Your task to perform on an android device: Open Google Chrome and click the shortcut for Amazon.com Image 0: 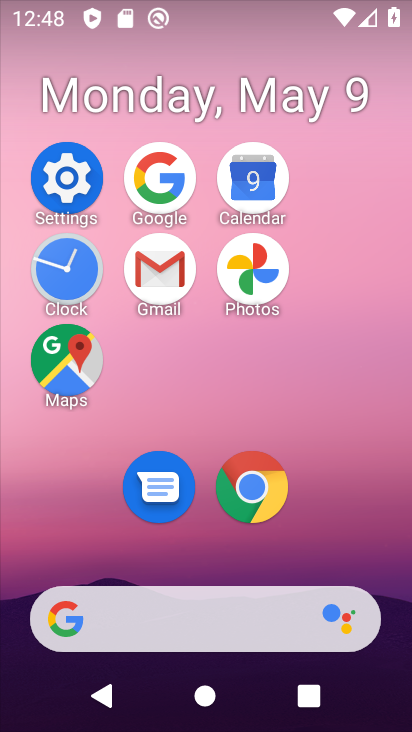
Step 0: click (274, 455)
Your task to perform on an android device: Open Google Chrome and click the shortcut for Amazon.com Image 1: 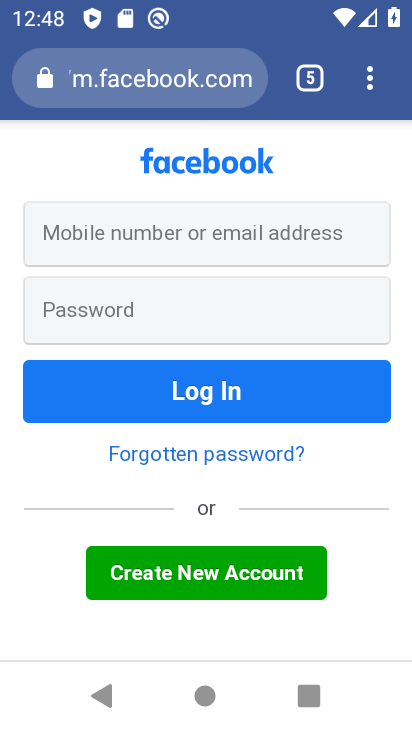
Step 1: click (325, 81)
Your task to perform on an android device: Open Google Chrome and click the shortcut for Amazon.com Image 2: 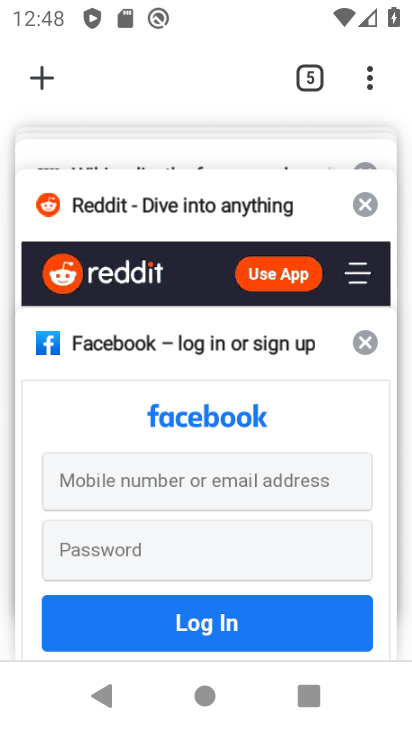
Step 2: drag from (202, 189) to (257, 468)
Your task to perform on an android device: Open Google Chrome and click the shortcut for Amazon.com Image 3: 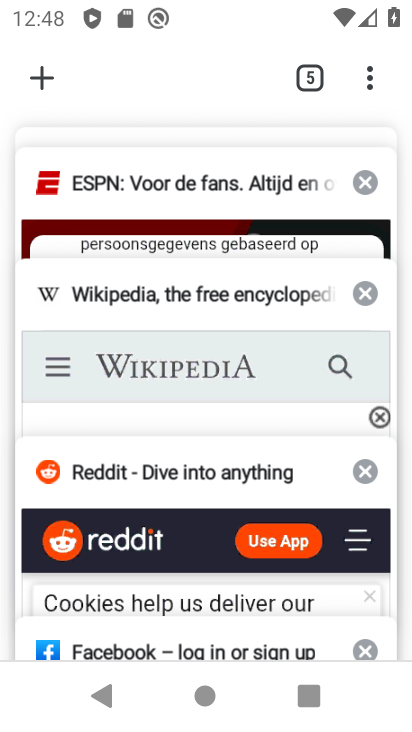
Step 3: drag from (214, 219) to (239, 478)
Your task to perform on an android device: Open Google Chrome and click the shortcut for Amazon.com Image 4: 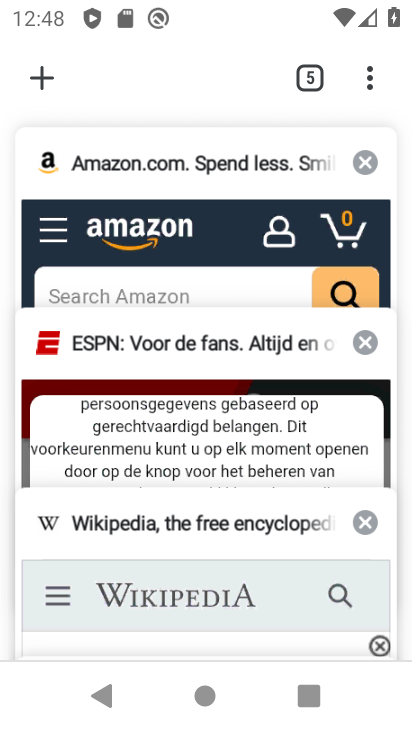
Step 4: click (200, 186)
Your task to perform on an android device: Open Google Chrome and click the shortcut for Amazon.com Image 5: 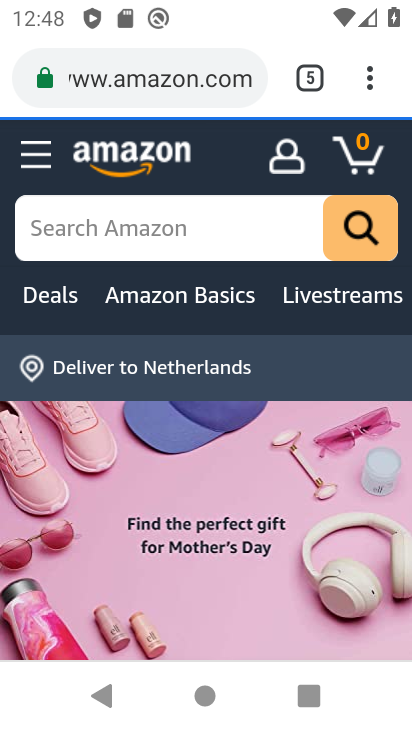
Step 5: click (372, 81)
Your task to perform on an android device: Open Google Chrome and click the shortcut for Amazon.com Image 6: 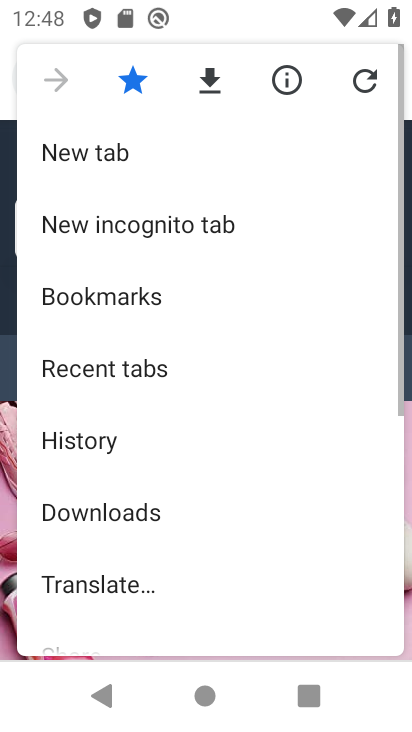
Step 6: drag from (246, 473) to (241, 155)
Your task to perform on an android device: Open Google Chrome and click the shortcut for Amazon.com Image 7: 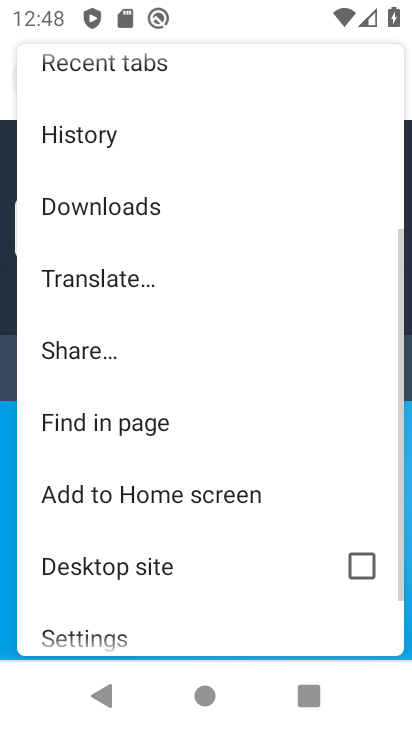
Step 7: click (232, 477)
Your task to perform on an android device: Open Google Chrome and click the shortcut for Amazon.com Image 8: 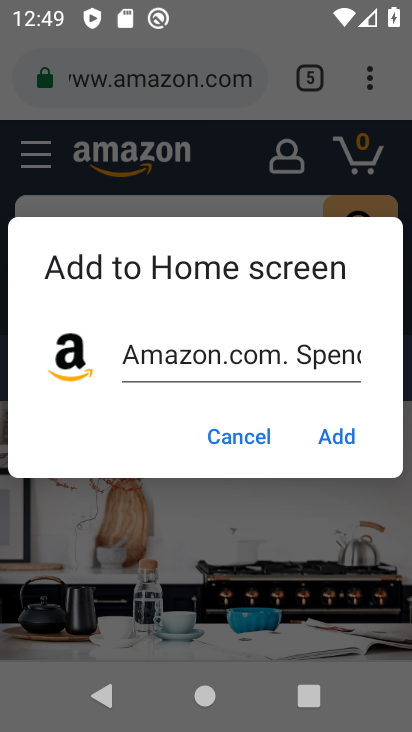
Step 8: click (329, 443)
Your task to perform on an android device: Open Google Chrome and click the shortcut for Amazon.com Image 9: 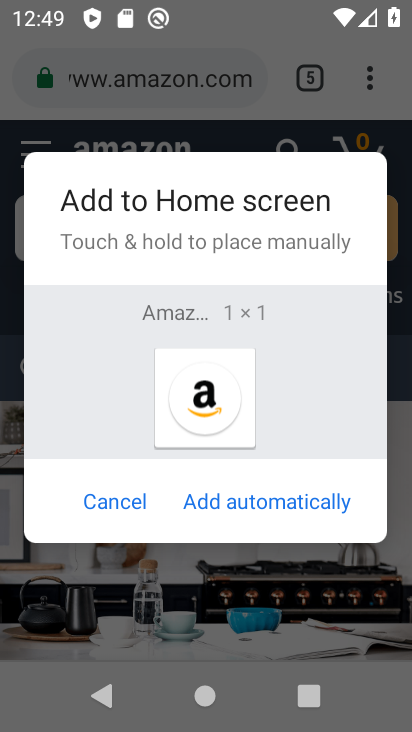
Step 9: click (313, 487)
Your task to perform on an android device: Open Google Chrome and click the shortcut for Amazon.com Image 10: 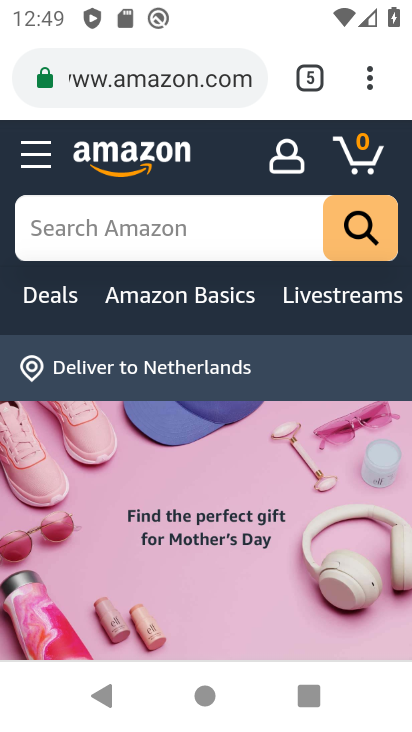
Step 10: task complete